Your task to perform on an android device: allow cookies in the chrome app Image 0: 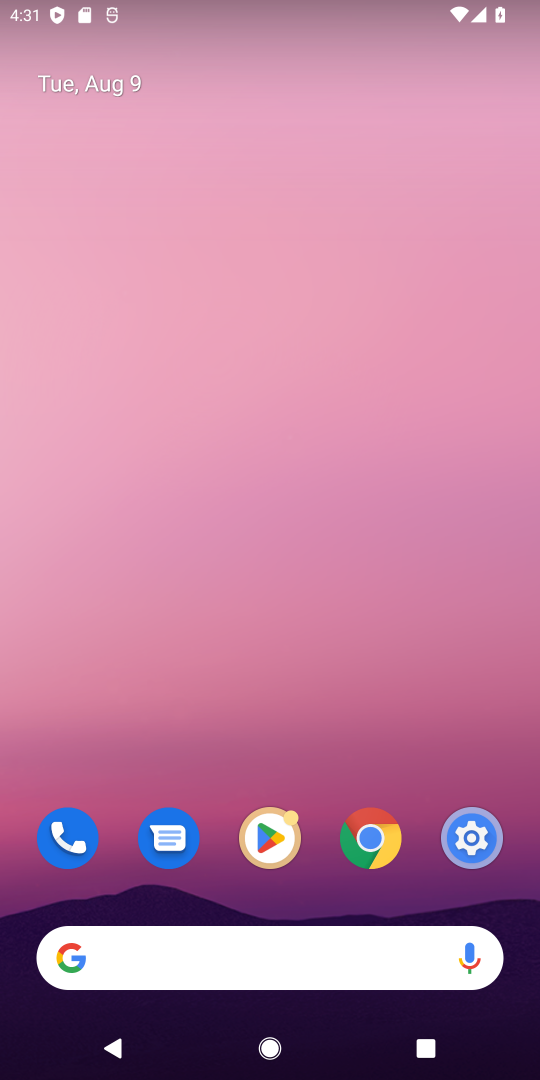
Step 0: click (364, 842)
Your task to perform on an android device: allow cookies in the chrome app Image 1: 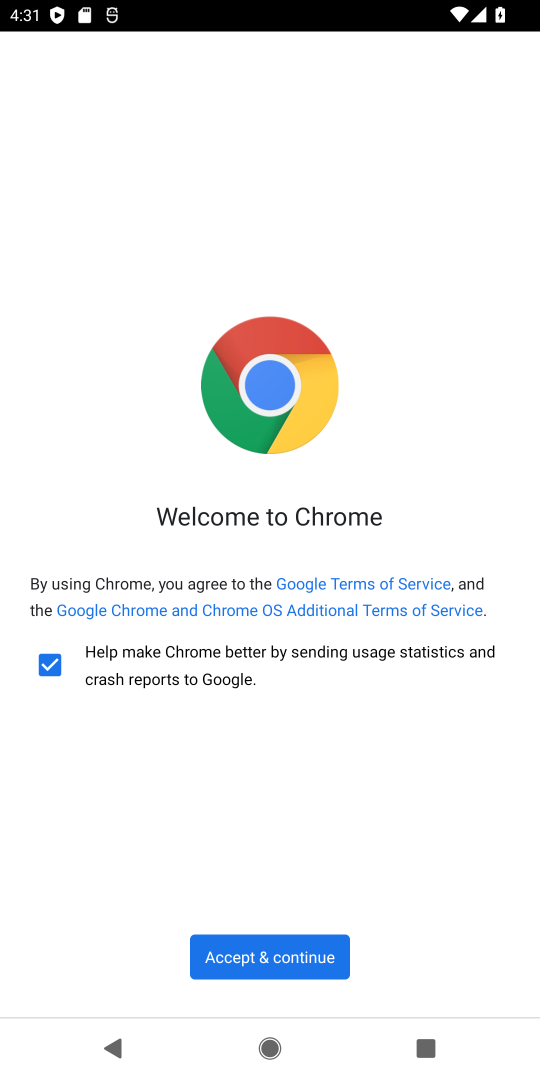
Step 1: click (307, 969)
Your task to perform on an android device: allow cookies in the chrome app Image 2: 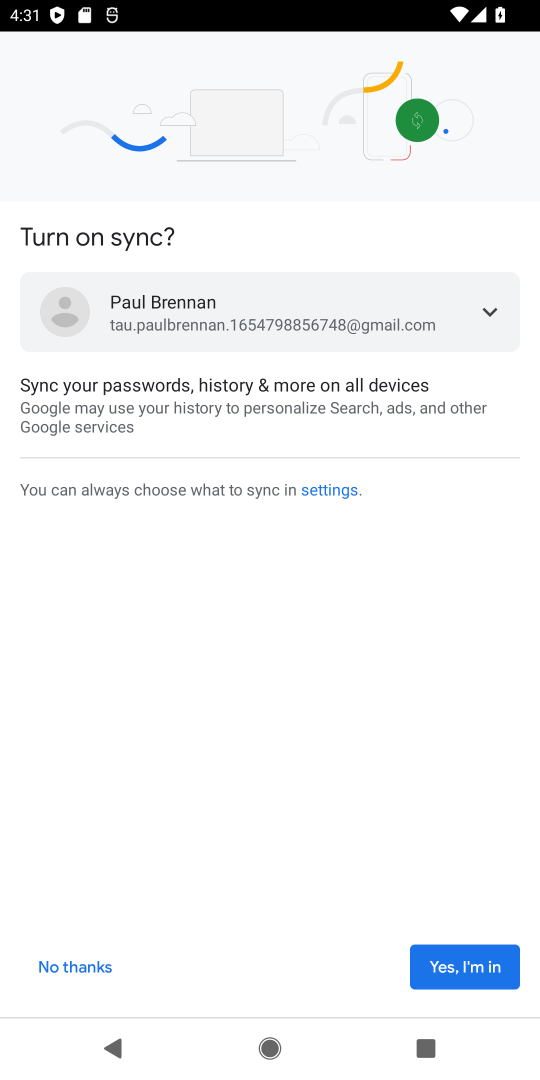
Step 2: click (419, 964)
Your task to perform on an android device: allow cookies in the chrome app Image 3: 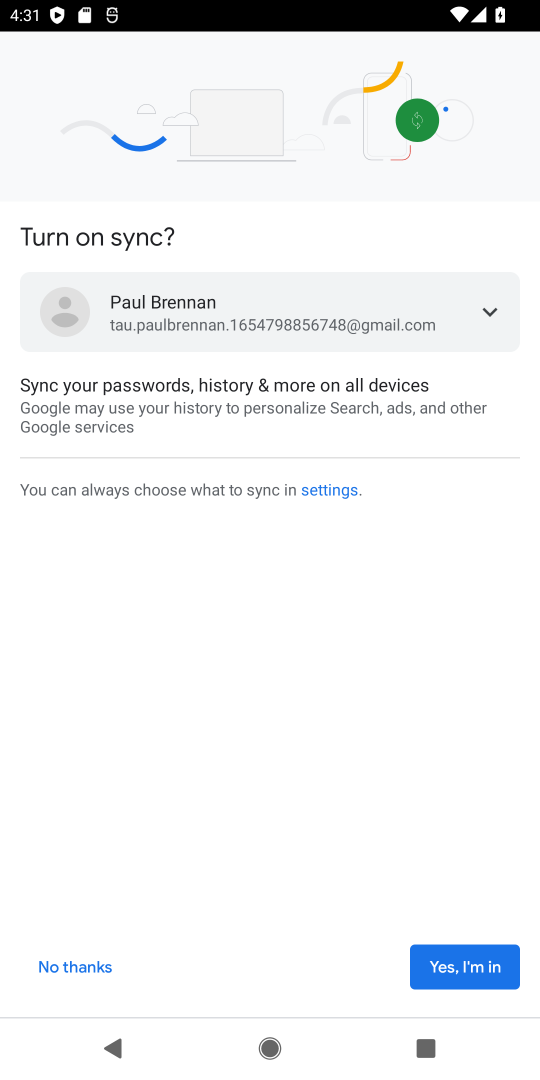
Step 3: click (360, 575)
Your task to perform on an android device: allow cookies in the chrome app Image 4: 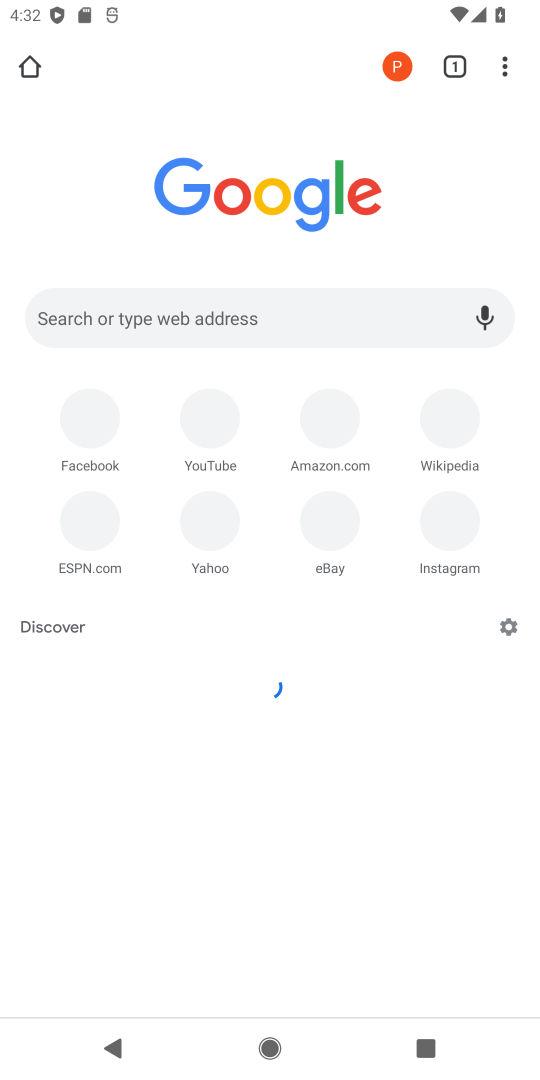
Step 4: click (513, 64)
Your task to perform on an android device: allow cookies in the chrome app Image 5: 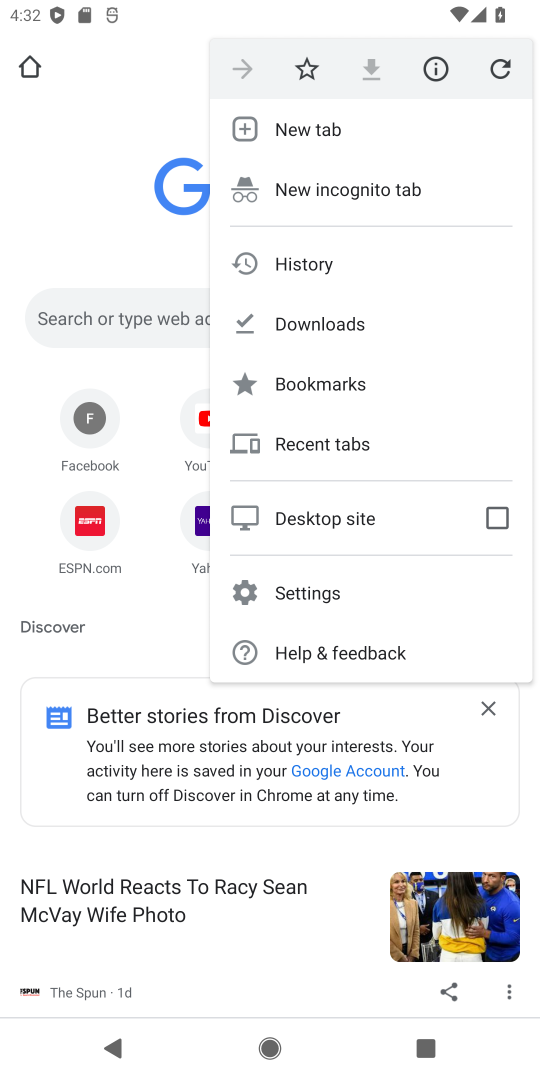
Step 5: click (306, 587)
Your task to perform on an android device: allow cookies in the chrome app Image 6: 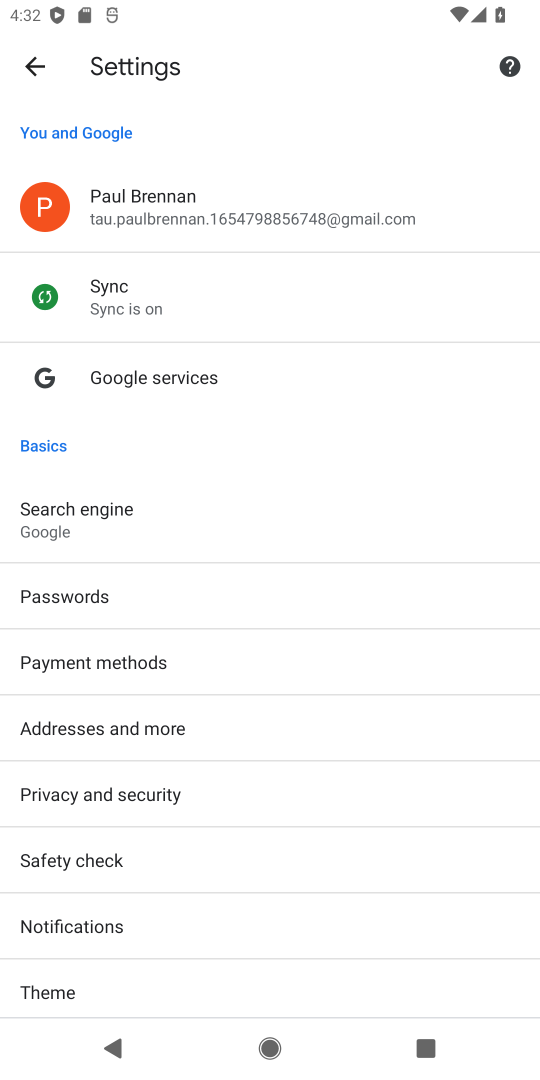
Step 6: drag from (221, 947) to (221, 471)
Your task to perform on an android device: allow cookies in the chrome app Image 7: 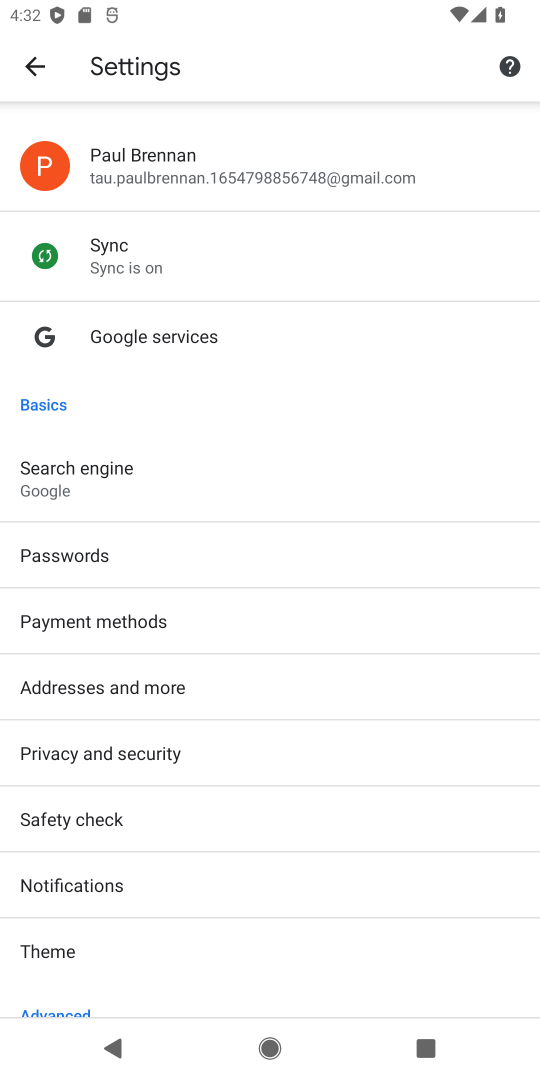
Step 7: drag from (210, 834) to (157, 334)
Your task to perform on an android device: allow cookies in the chrome app Image 8: 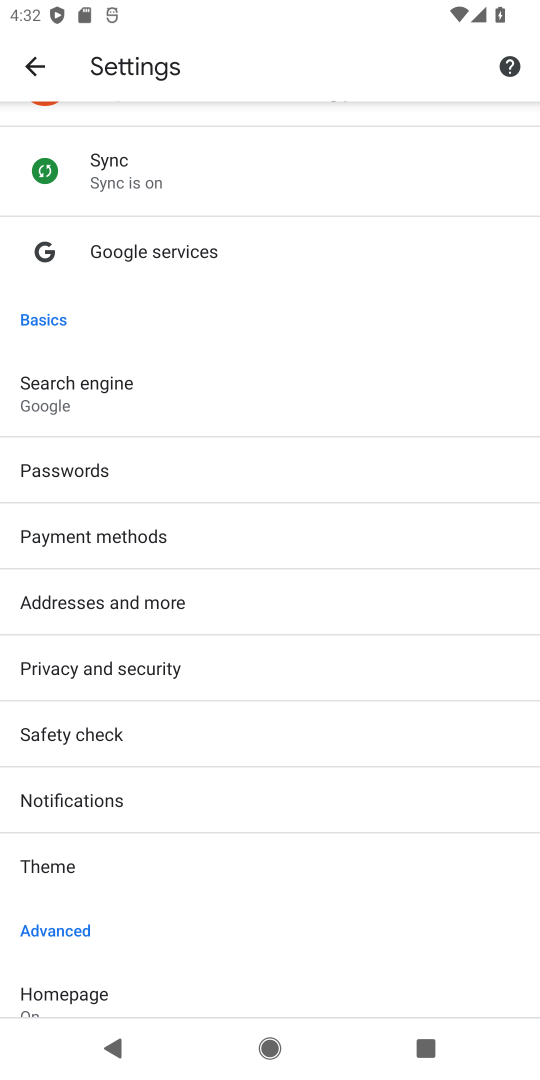
Step 8: drag from (194, 918) to (181, 130)
Your task to perform on an android device: allow cookies in the chrome app Image 9: 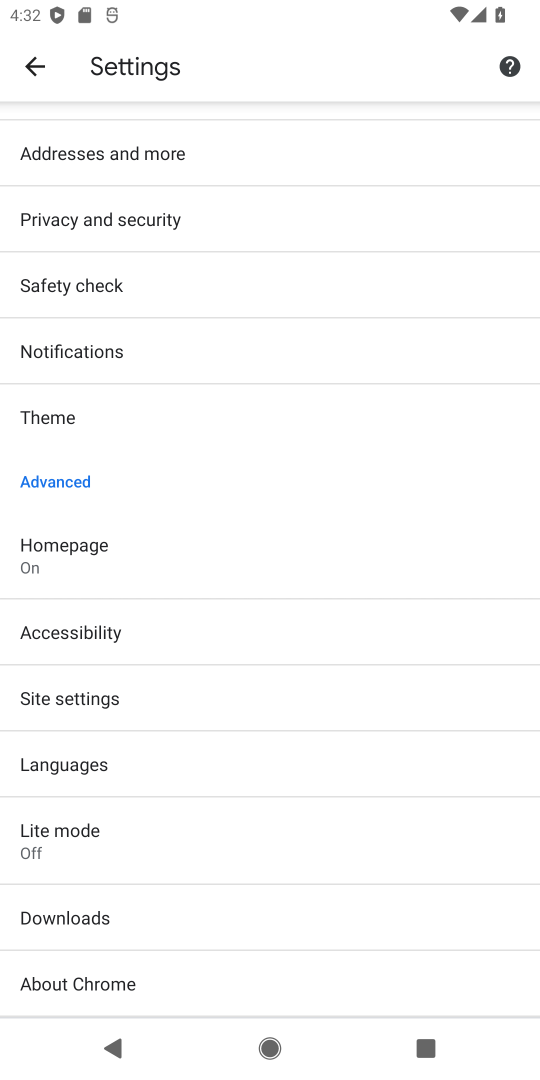
Step 9: click (118, 702)
Your task to perform on an android device: allow cookies in the chrome app Image 10: 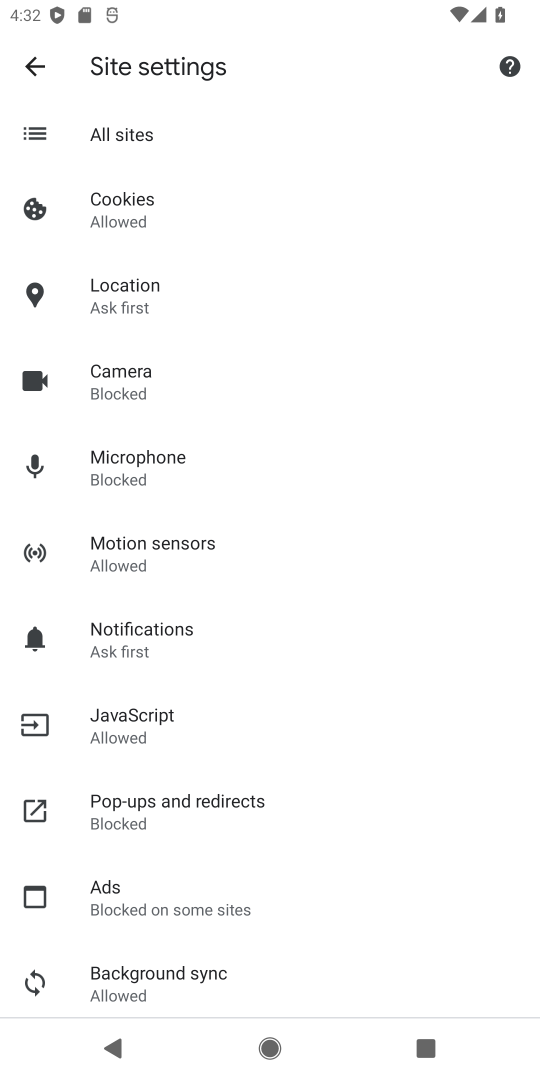
Step 10: click (254, 201)
Your task to perform on an android device: allow cookies in the chrome app Image 11: 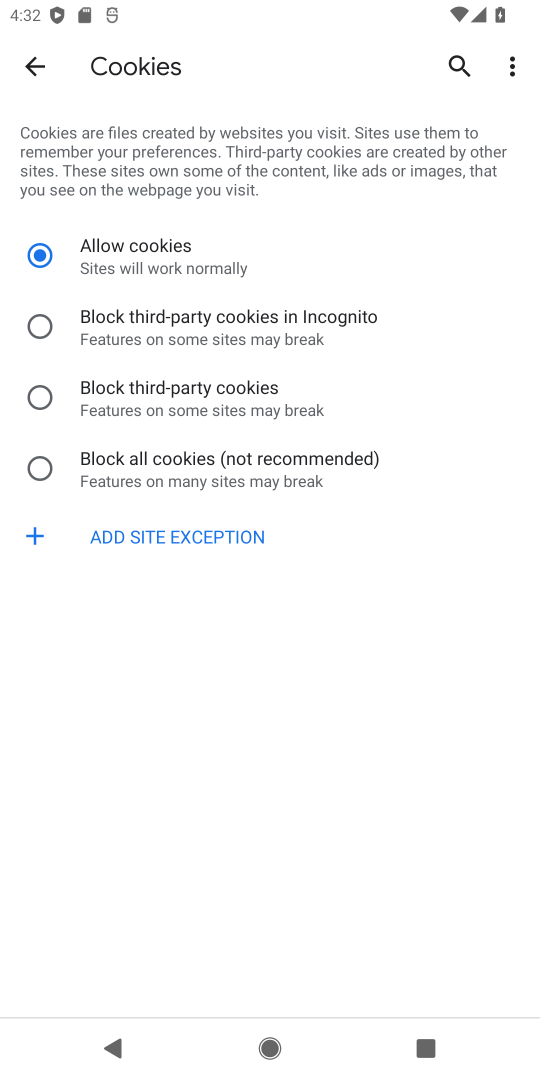
Step 11: task complete